Your task to perform on an android device: turn on location history Image 0: 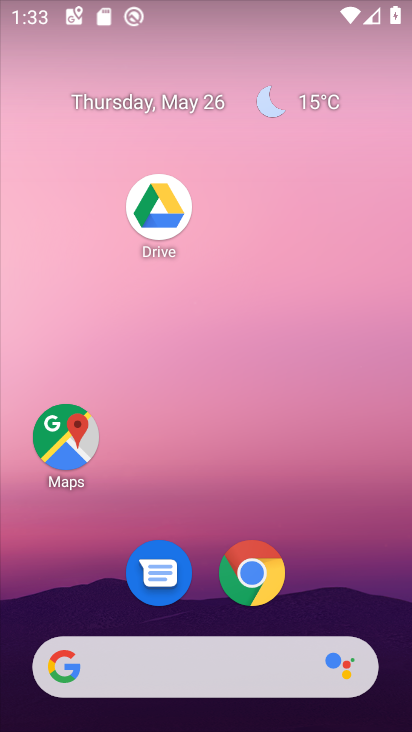
Step 0: click (378, 221)
Your task to perform on an android device: turn on location history Image 1: 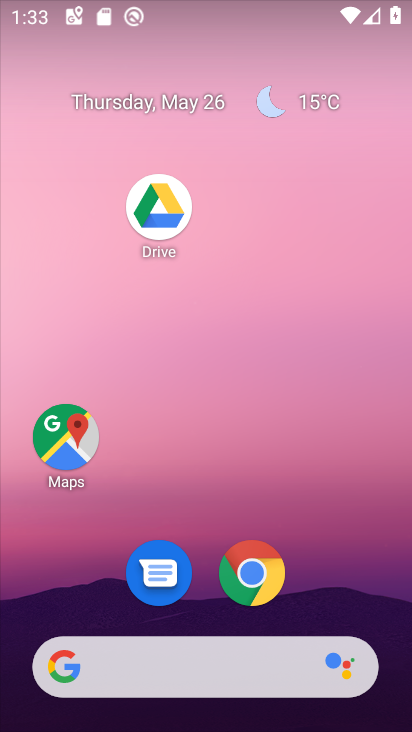
Step 1: drag from (334, 594) to (322, 9)
Your task to perform on an android device: turn on location history Image 2: 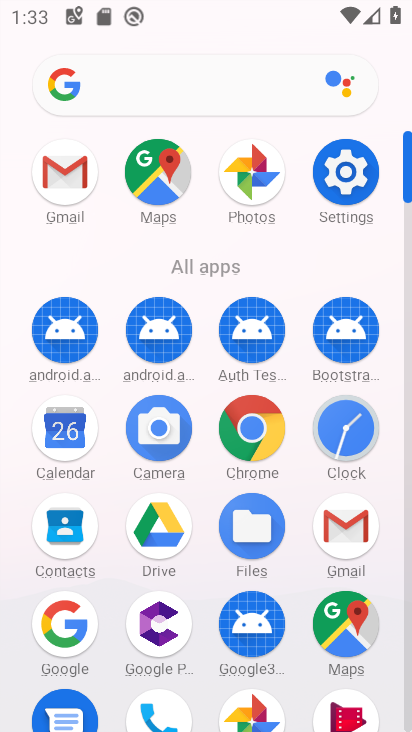
Step 2: click (349, 176)
Your task to perform on an android device: turn on location history Image 3: 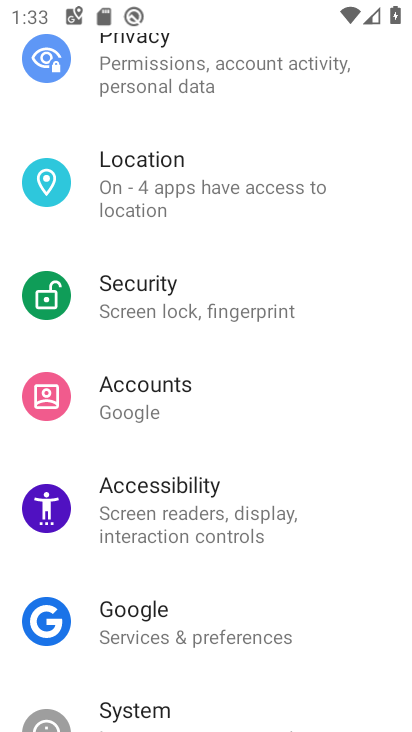
Step 3: drag from (325, 656) to (311, 177)
Your task to perform on an android device: turn on location history Image 4: 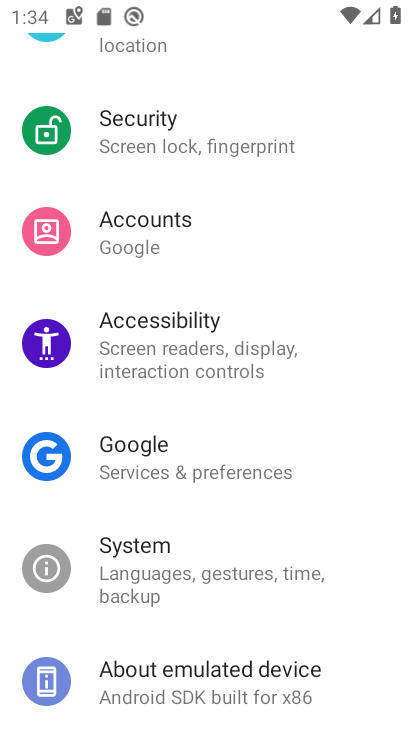
Step 4: drag from (199, 138) to (169, 488)
Your task to perform on an android device: turn on location history Image 5: 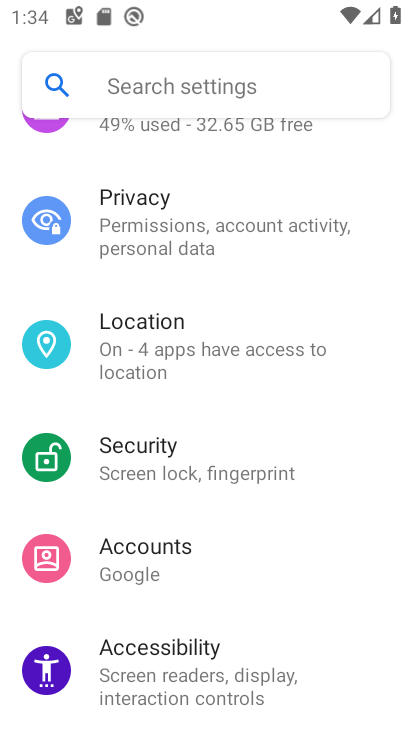
Step 5: click (164, 356)
Your task to perform on an android device: turn on location history Image 6: 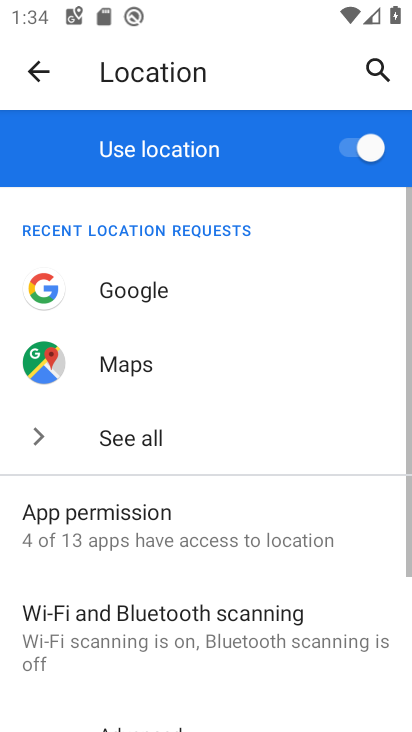
Step 6: drag from (187, 643) to (148, 315)
Your task to perform on an android device: turn on location history Image 7: 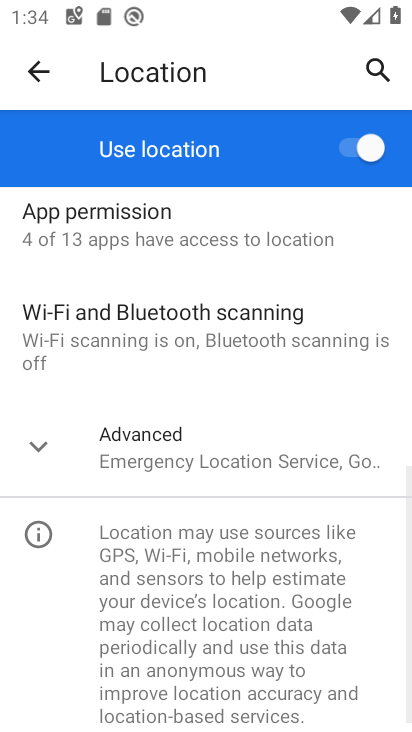
Step 7: click (141, 429)
Your task to perform on an android device: turn on location history Image 8: 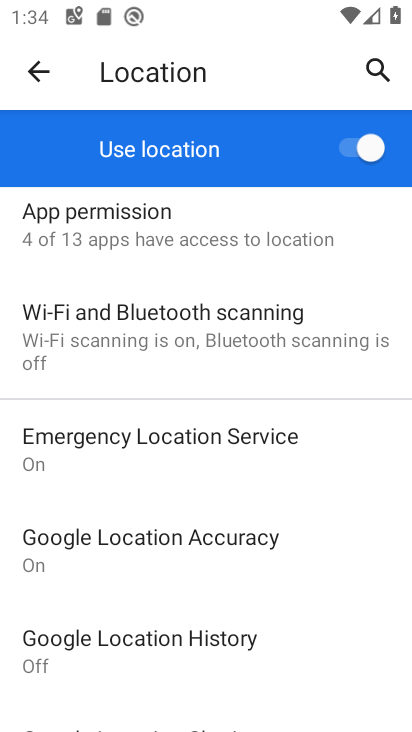
Step 8: click (242, 663)
Your task to perform on an android device: turn on location history Image 9: 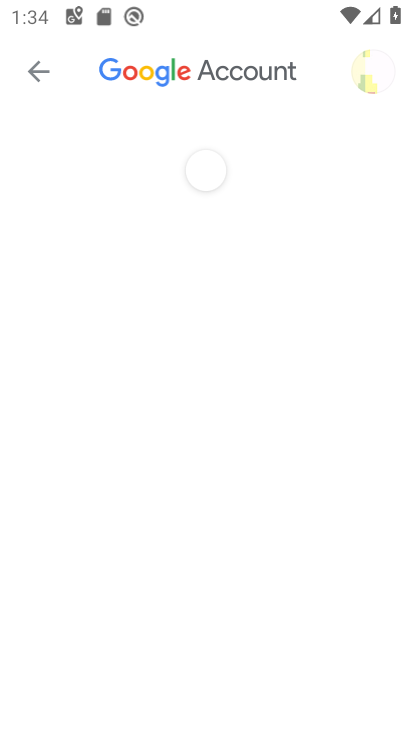
Step 9: drag from (268, 547) to (258, 0)
Your task to perform on an android device: turn on location history Image 10: 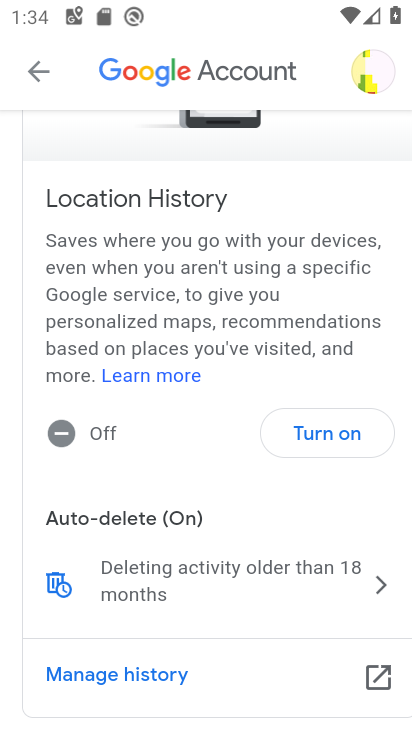
Step 10: click (305, 429)
Your task to perform on an android device: turn on location history Image 11: 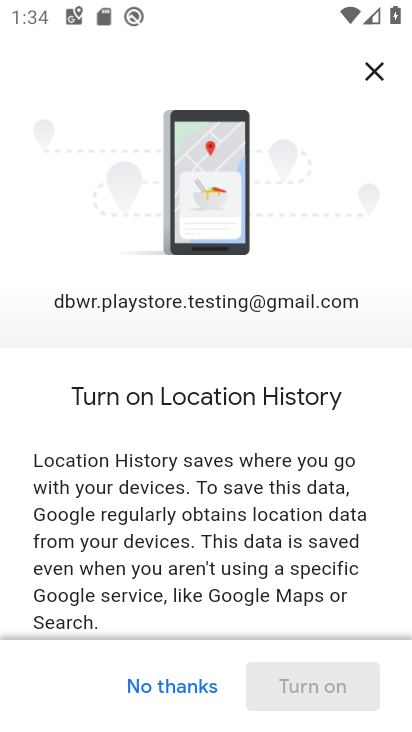
Step 11: drag from (341, 583) to (323, 22)
Your task to perform on an android device: turn on location history Image 12: 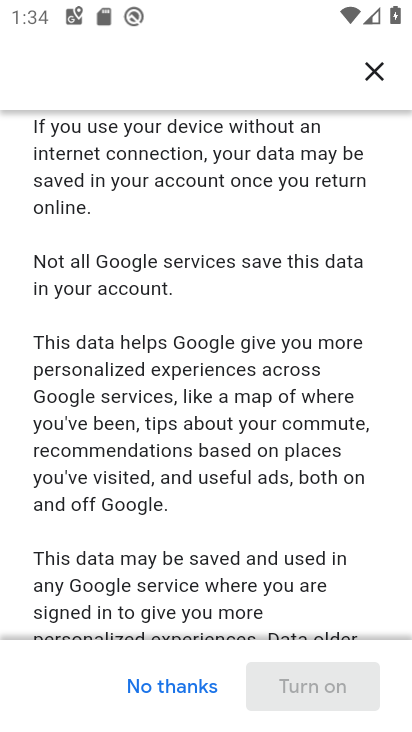
Step 12: drag from (311, 633) to (280, 45)
Your task to perform on an android device: turn on location history Image 13: 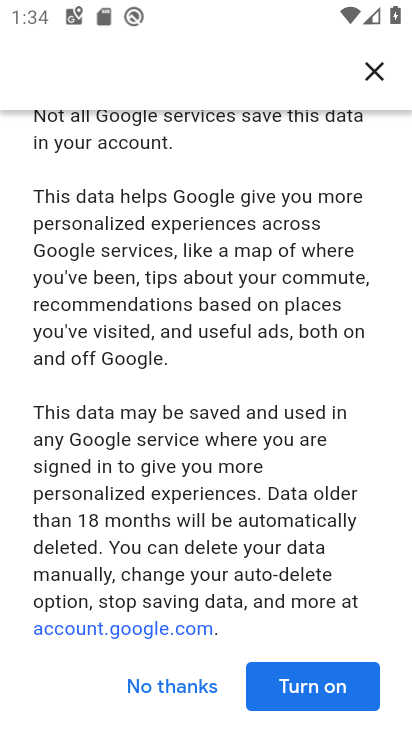
Step 13: click (322, 672)
Your task to perform on an android device: turn on location history Image 14: 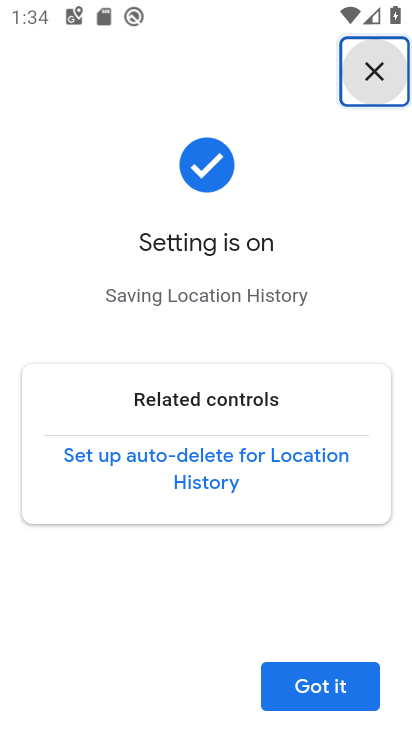
Step 14: click (323, 699)
Your task to perform on an android device: turn on location history Image 15: 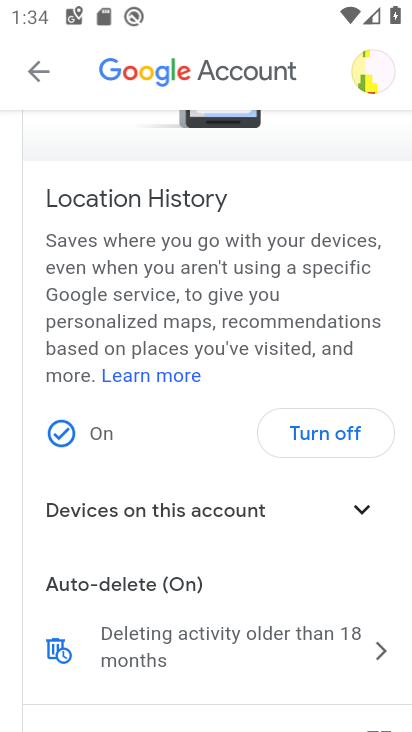
Step 15: task complete